Your task to perform on an android device: Go to battery settings Image 0: 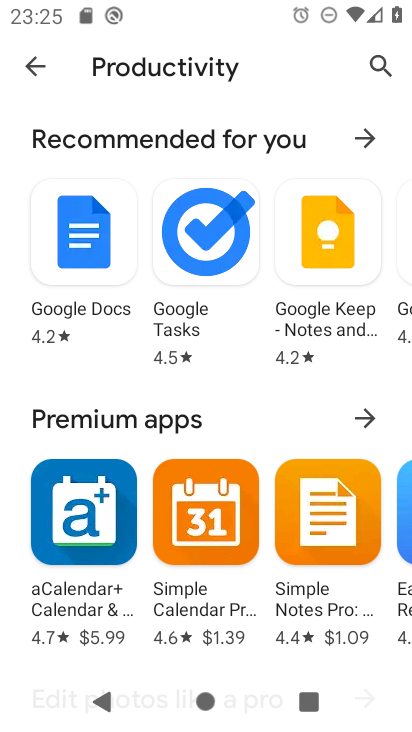
Step 0: press home button
Your task to perform on an android device: Go to battery settings Image 1: 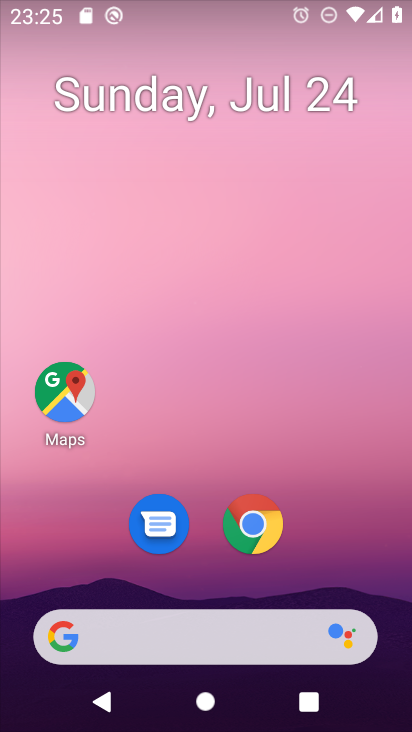
Step 1: drag from (187, 645) to (211, 54)
Your task to perform on an android device: Go to battery settings Image 2: 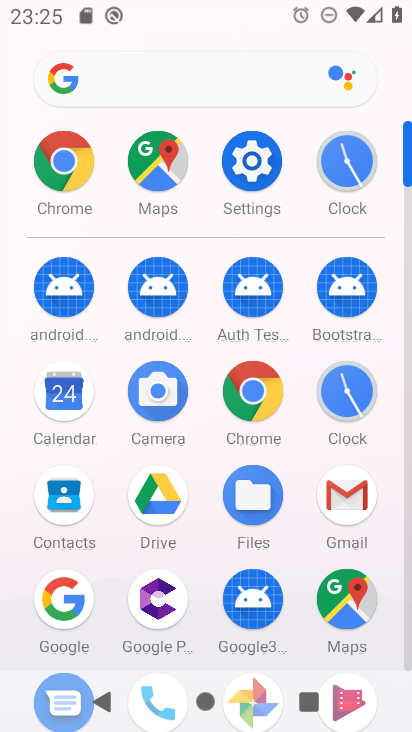
Step 2: click (244, 179)
Your task to perform on an android device: Go to battery settings Image 3: 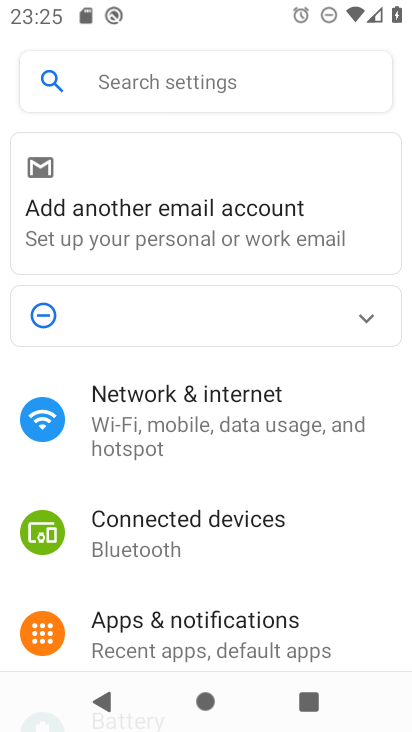
Step 3: drag from (195, 589) to (227, 126)
Your task to perform on an android device: Go to battery settings Image 4: 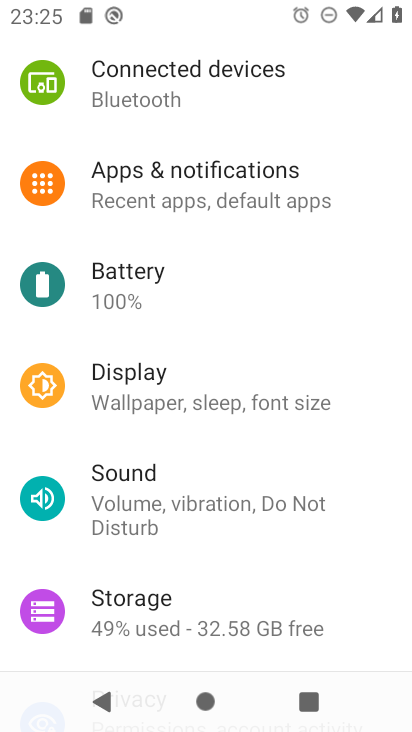
Step 4: click (135, 289)
Your task to perform on an android device: Go to battery settings Image 5: 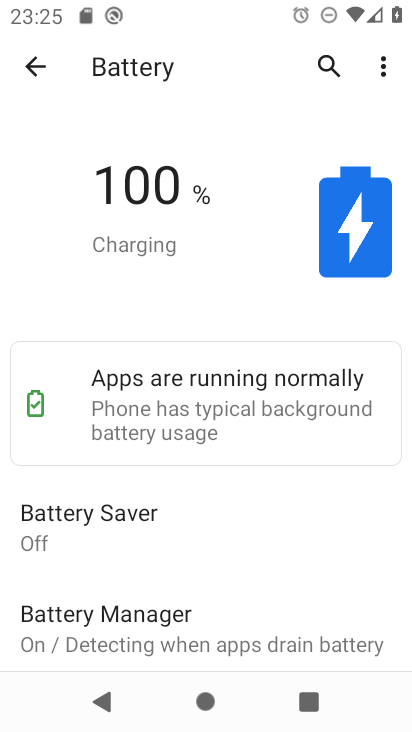
Step 5: task complete